Your task to perform on an android device: Open Youtube and go to the subscriptions tab Image 0: 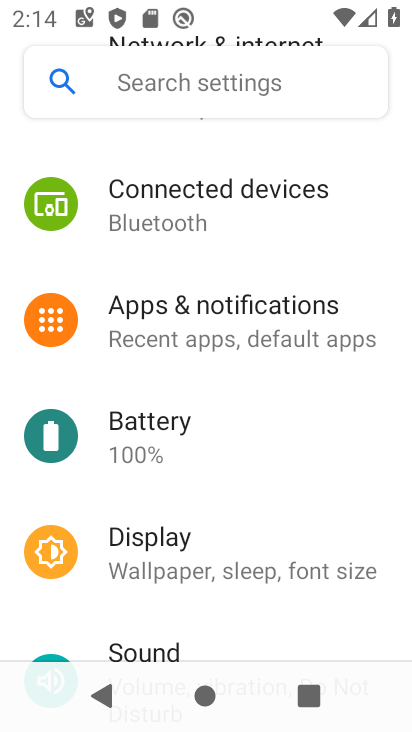
Step 0: press home button
Your task to perform on an android device: Open Youtube and go to the subscriptions tab Image 1: 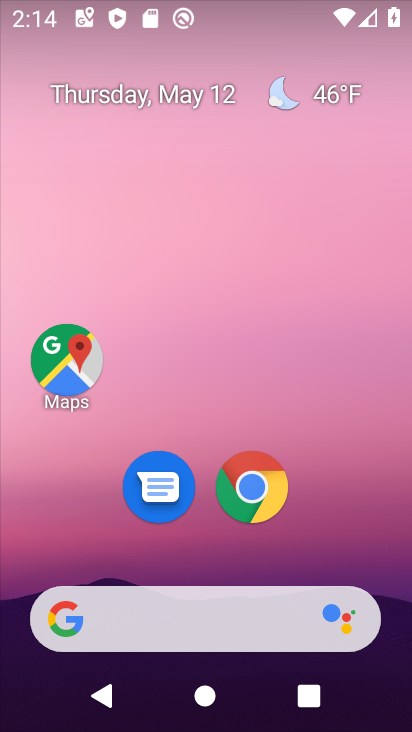
Step 1: drag from (177, 542) to (182, 21)
Your task to perform on an android device: Open Youtube and go to the subscriptions tab Image 2: 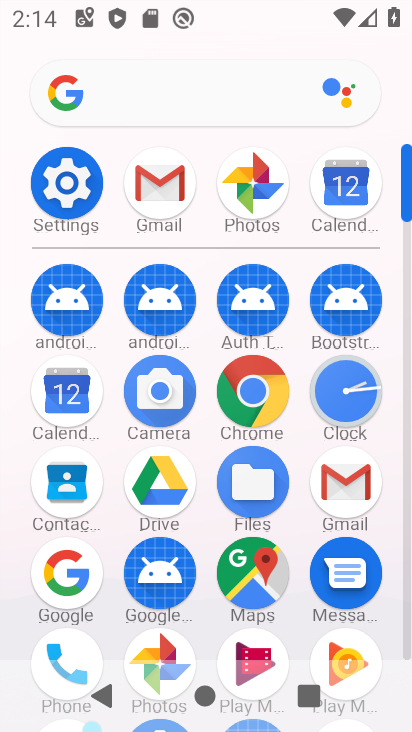
Step 2: drag from (205, 276) to (204, 124)
Your task to perform on an android device: Open Youtube and go to the subscriptions tab Image 3: 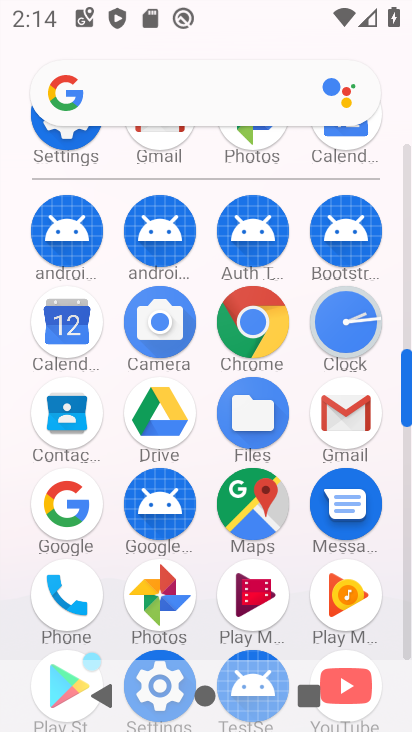
Step 3: drag from (285, 637) to (290, 269)
Your task to perform on an android device: Open Youtube and go to the subscriptions tab Image 4: 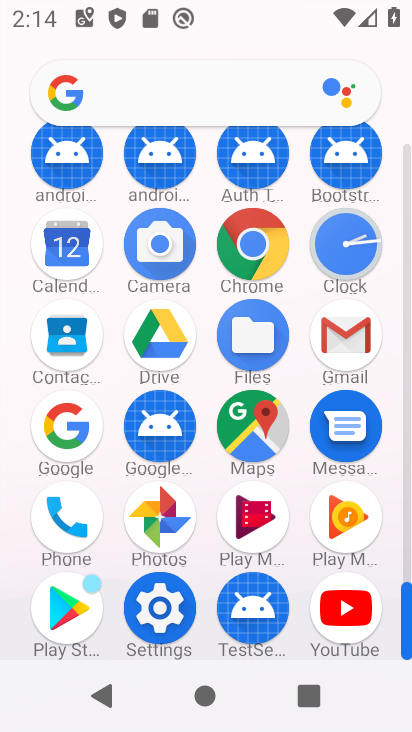
Step 4: click (350, 613)
Your task to perform on an android device: Open Youtube and go to the subscriptions tab Image 5: 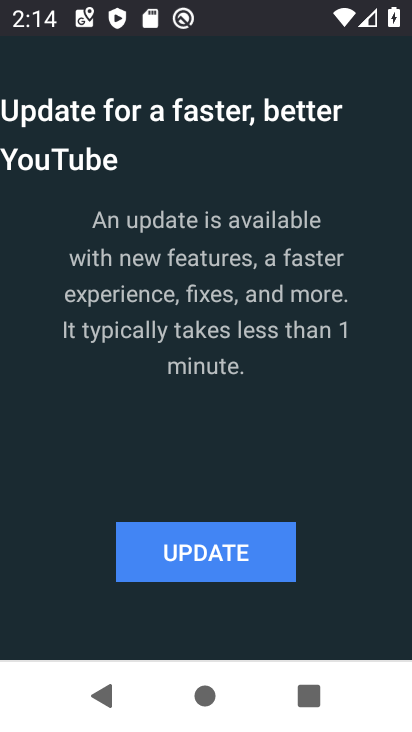
Step 5: click (242, 550)
Your task to perform on an android device: Open Youtube and go to the subscriptions tab Image 6: 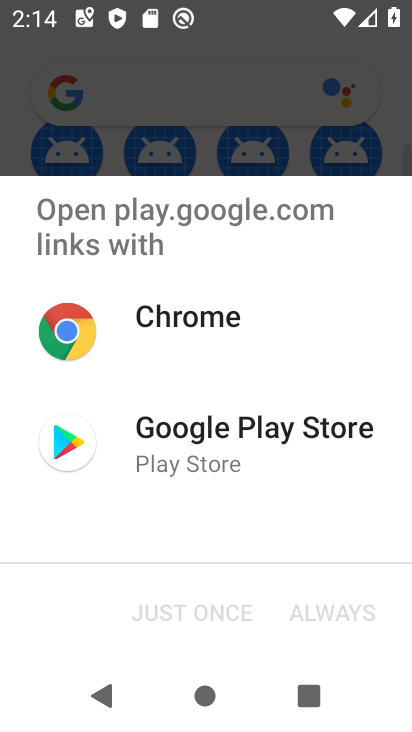
Step 6: click (173, 463)
Your task to perform on an android device: Open Youtube and go to the subscriptions tab Image 7: 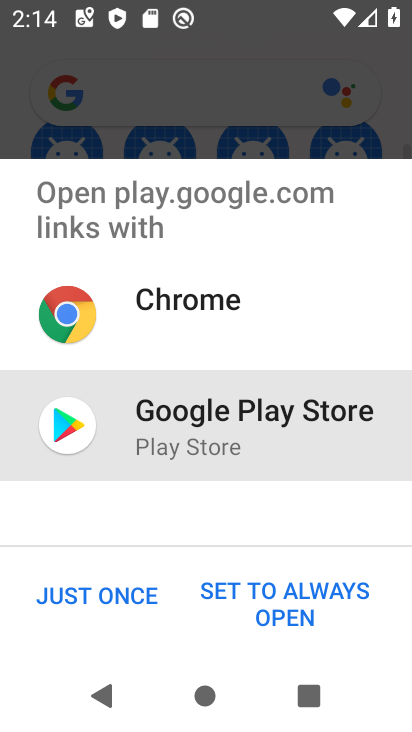
Step 7: click (113, 592)
Your task to perform on an android device: Open Youtube and go to the subscriptions tab Image 8: 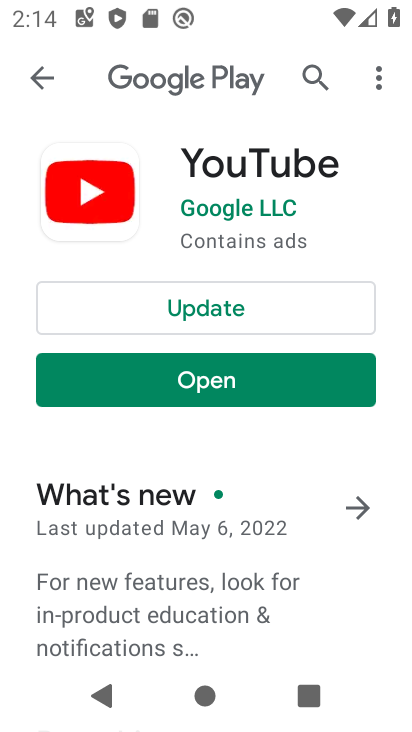
Step 8: click (227, 301)
Your task to perform on an android device: Open Youtube and go to the subscriptions tab Image 9: 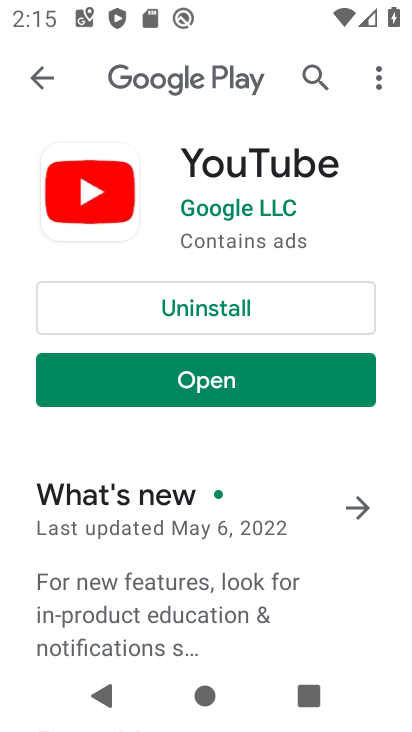
Step 9: click (271, 384)
Your task to perform on an android device: Open Youtube and go to the subscriptions tab Image 10: 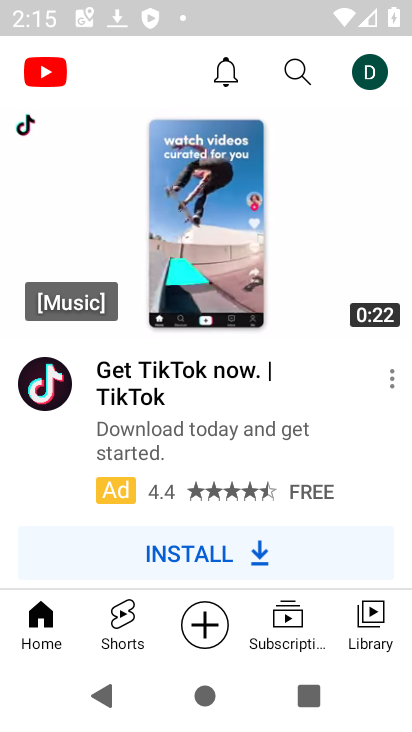
Step 10: click (272, 633)
Your task to perform on an android device: Open Youtube and go to the subscriptions tab Image 11: 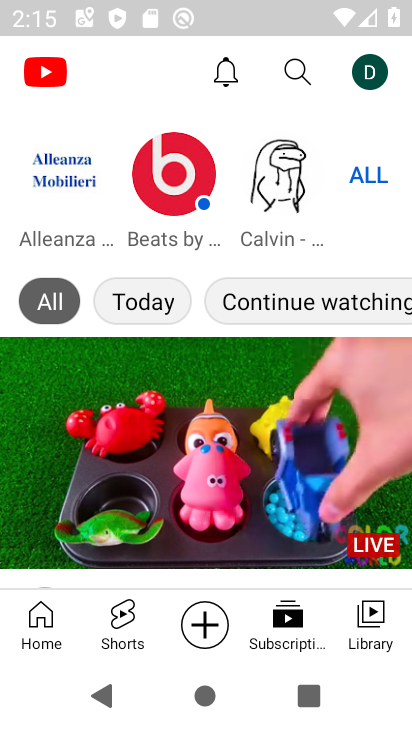
Step 11: task complete